Your task to perform on an android device: Open the calendar app, open the side menu, and click the "Day" option Image 0: 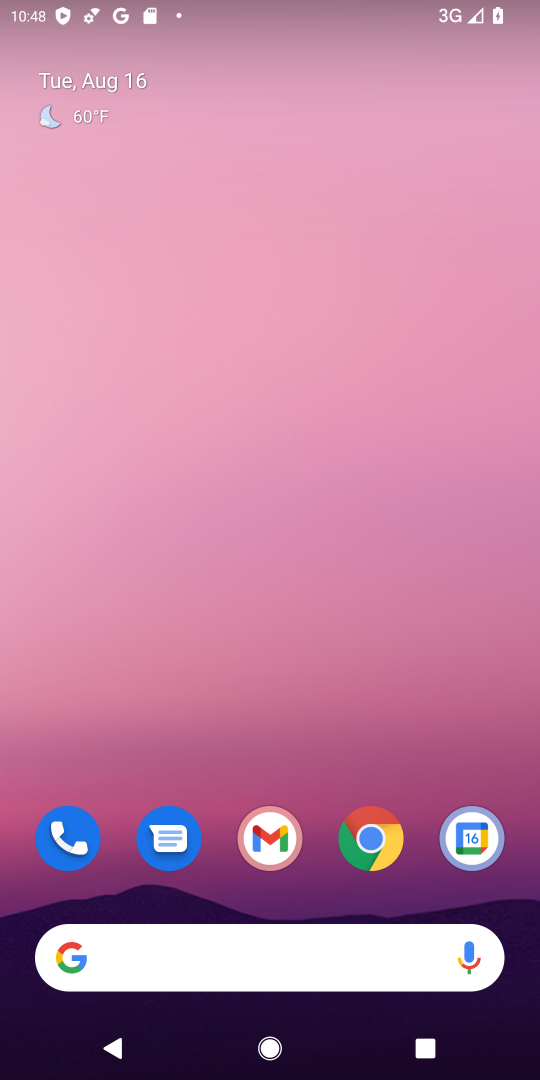
Step 0: press home button
Your task to perform on an android device: Open the calendar app, open the side menu, and click the "Day" option Image 1: 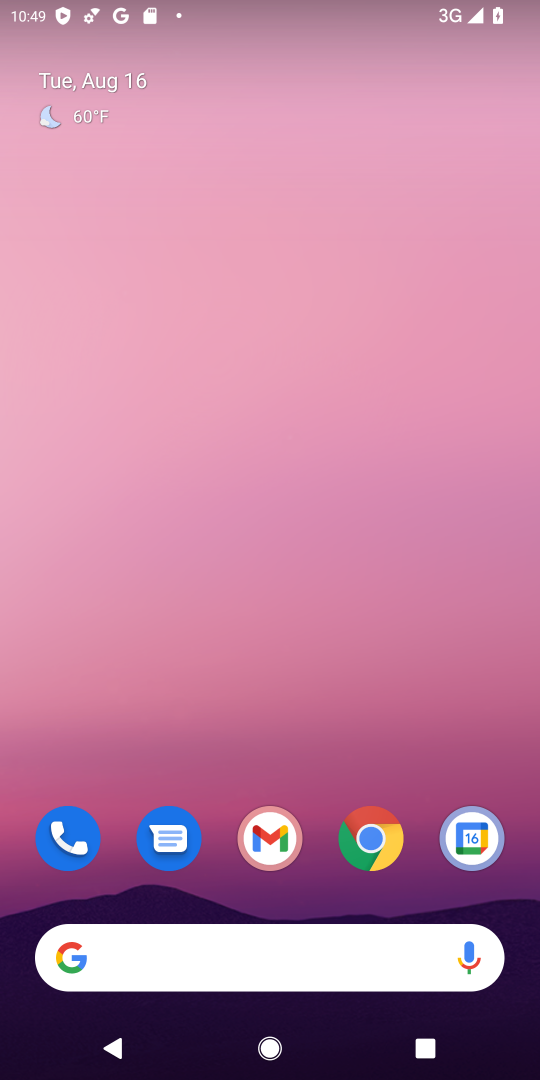
Step 1: click (462, 833)
Your task to perform on an android device: Open the calendar app, open the side menu, and click the "Day" option Image 2: 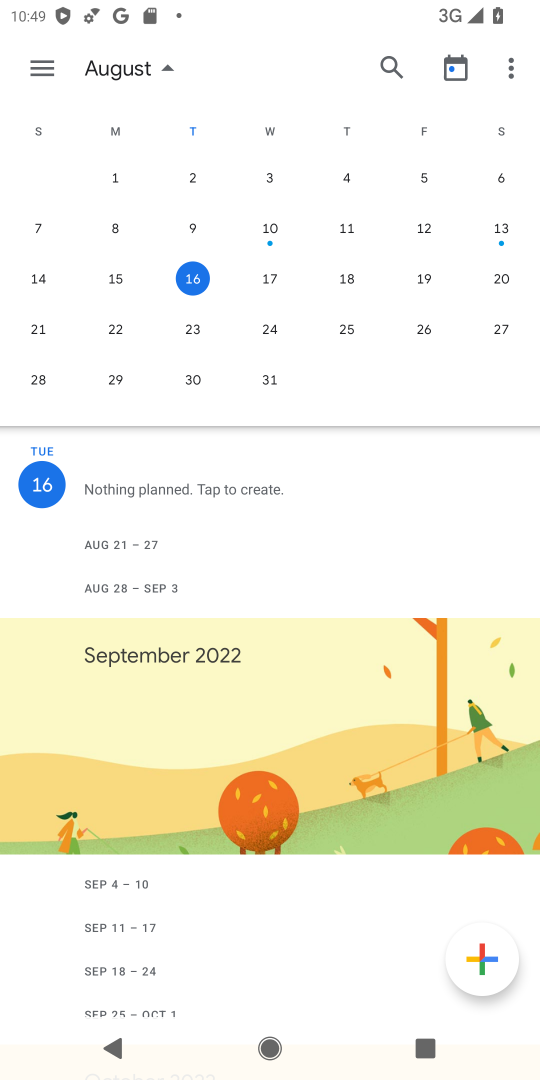
Step 2: click (43, 71)
Your task to perform on an android device: Open the calendar app, open the side menu, and click the "Day" option Image 3: 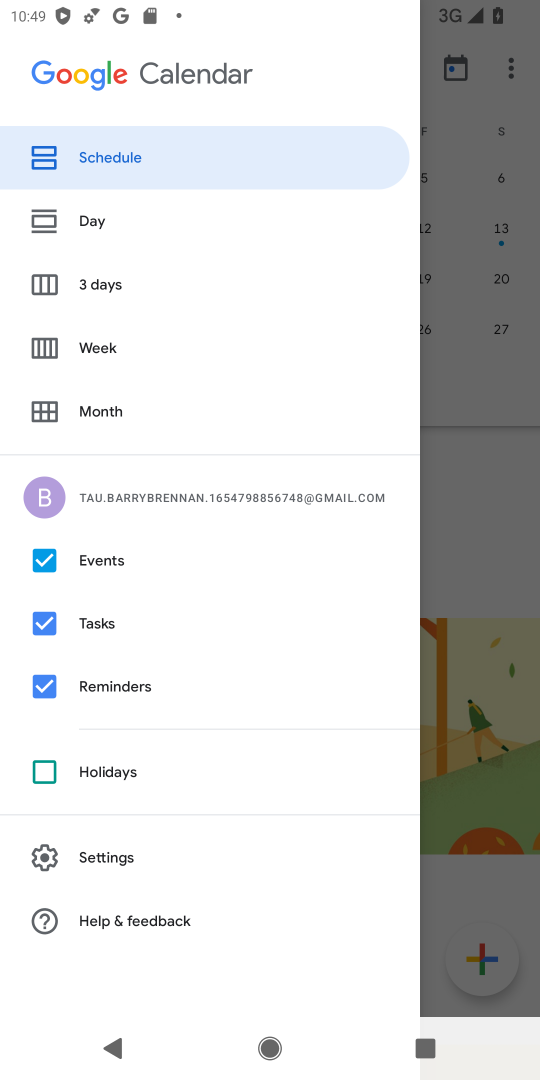
Step 3: click (89, 222)
Your task to perform on an android device: Open the calendar app, open the side menu, and click the "Day" option Image 4: 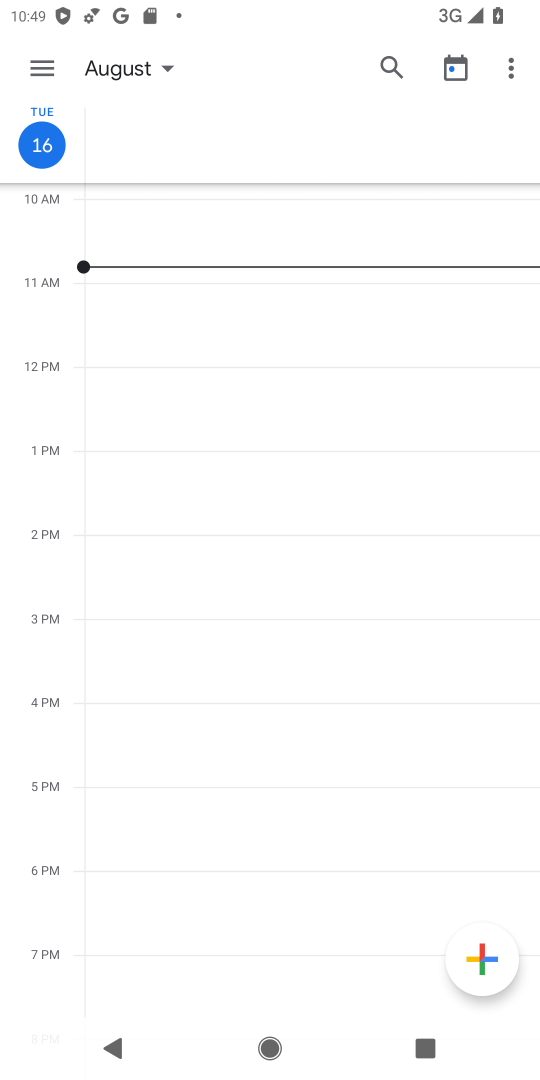
Step 4: task complete